Your task to perform on an android device: open chrome and create a bookmark for the current page Image 0: 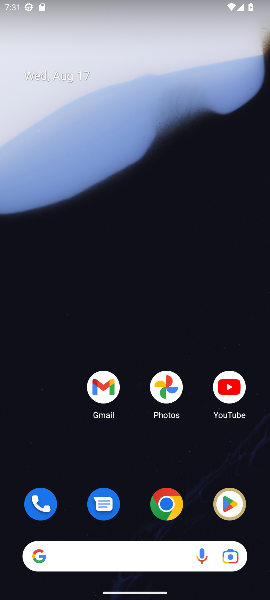
Step 0: drag from (152, 458) to (192, 135)
Your task to perform on an android device: open chrome and create a bookmark for the current page Image 1: 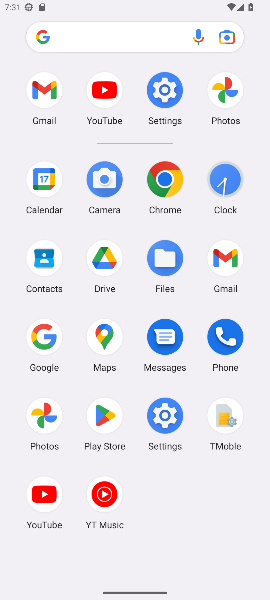
Step 1: click (166, 196)
Your task to perform on an android device: open chrome and create a bookmark for the current page Image 2: 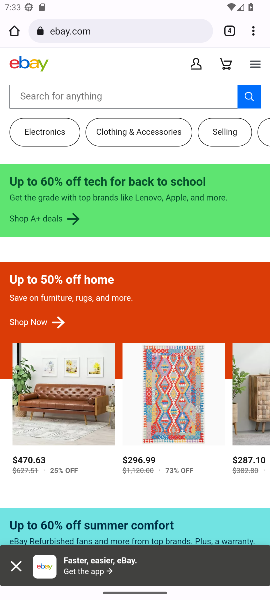
Step 2: click (250, 27)
Your task to perform on an android device: open chrome and create a bookmark for the current page Image 3: 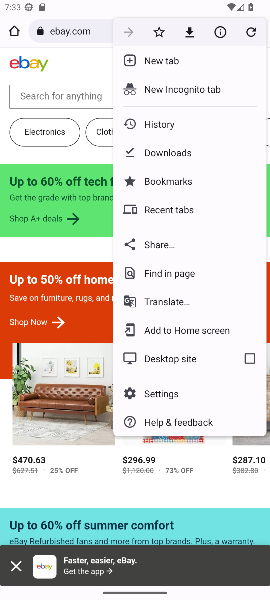
Step 3: click (148, 33)
Your task to perform on an android device: open chrome and create a bookmark for the current page Image 4: 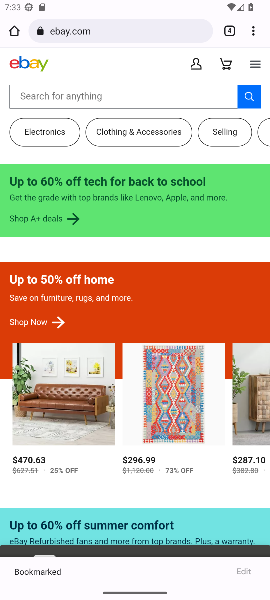
Step 4: task complete